Your task to perform on an android device: set default search engine in the chrome app Image 0: 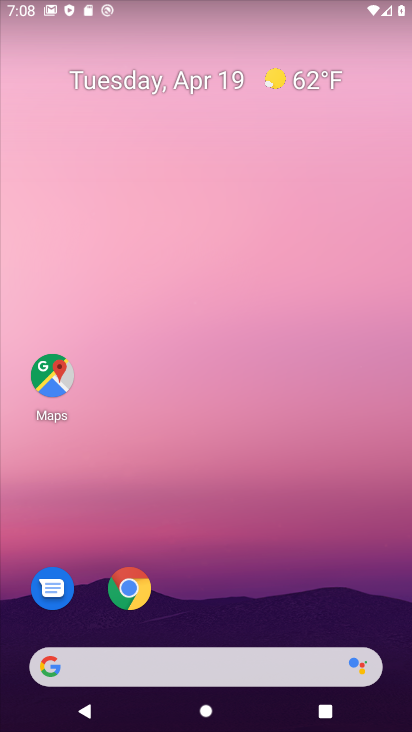
Step 0: click (132, 590)
Your task to perform on an android device: set default search engine in the chrome app Image 1: 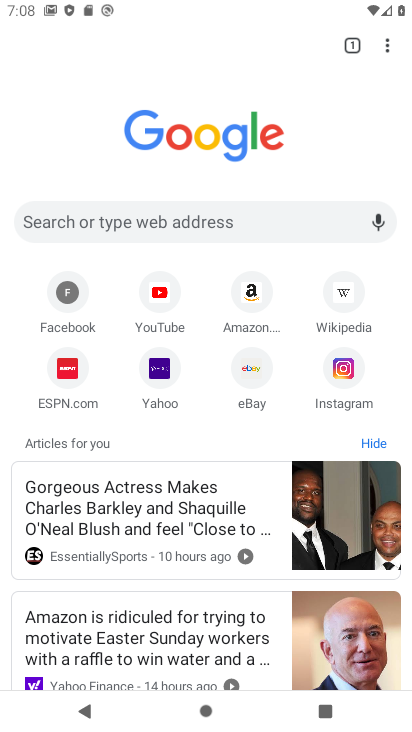
Step 1: click (388, 45)
Your task to perform on an android device: set default search engine in the chrome app Image 2: 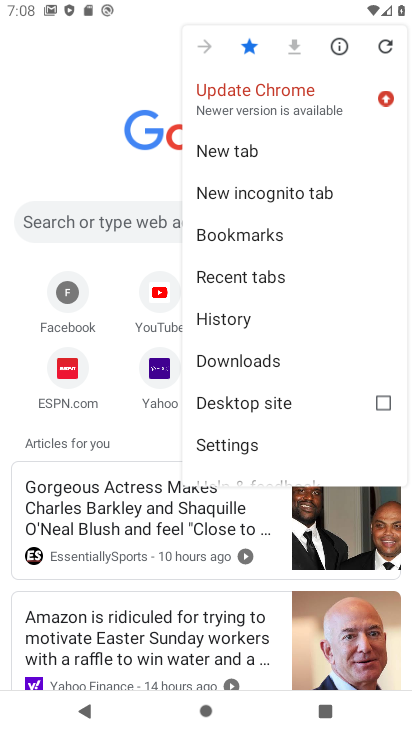
Step 2: click (231, 450)
Your task to perform on an android device: set default search engine in the chrome app Image 3: 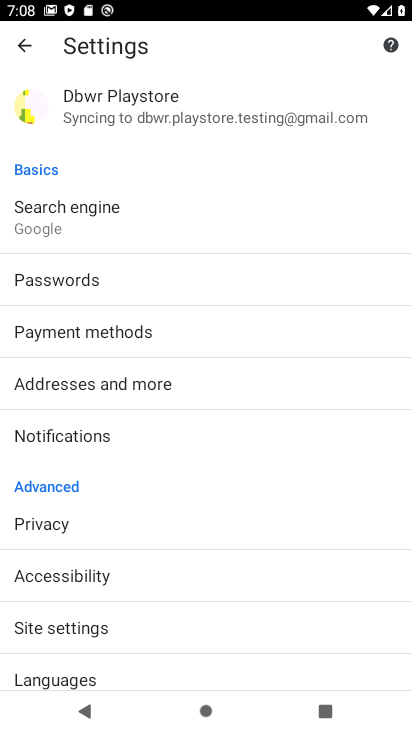
Step 3: click (72, 215)
Your task to perform on an android device: set default search engine in the chrome app Image 4: 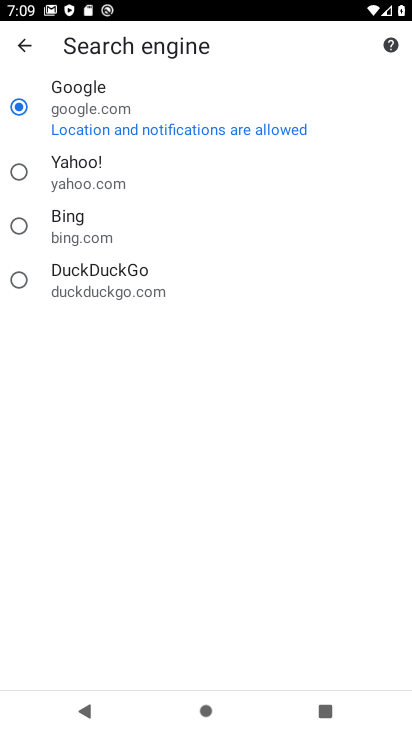
Step 4: click (19, 169)
Your task to perform on an android device: set default search engine in the chrome app Image 5: 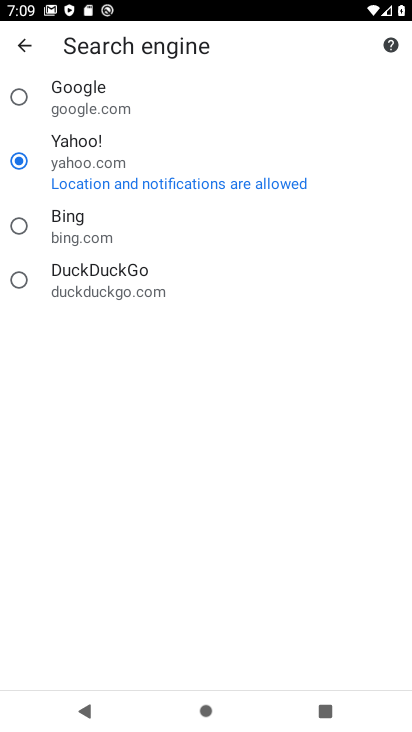
Step 5: task complete